Your task to perform on an android device: turn notification dots on Image 0: 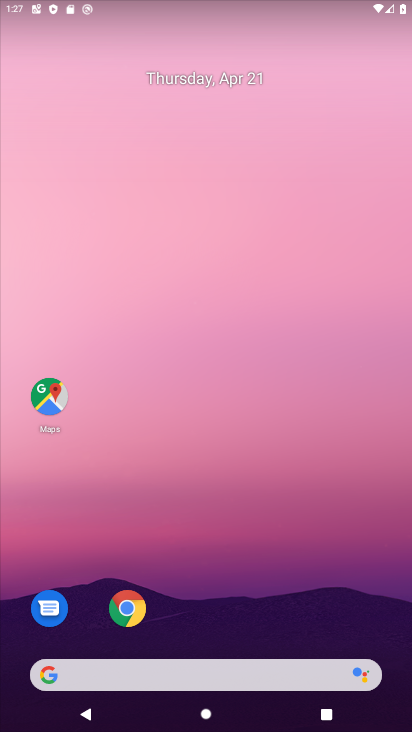
Step 0: drag from (340, 493) to (326, 88)
Your task to perform on an android device: turn notification dots on Image 1: 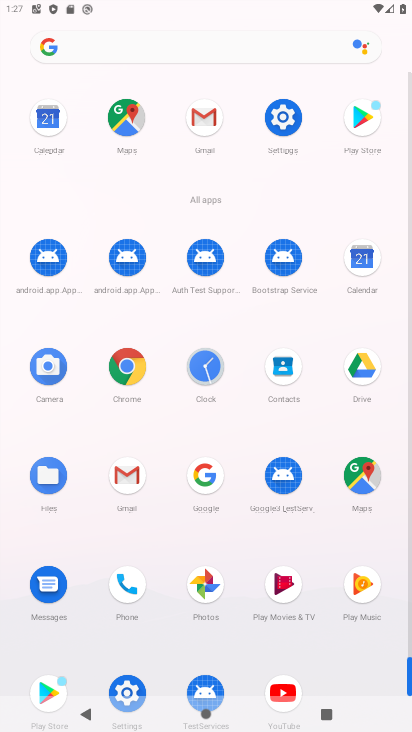
Step 1: click (292, 119)
Your task to perform on an android device: turn notification dots on Image 2: 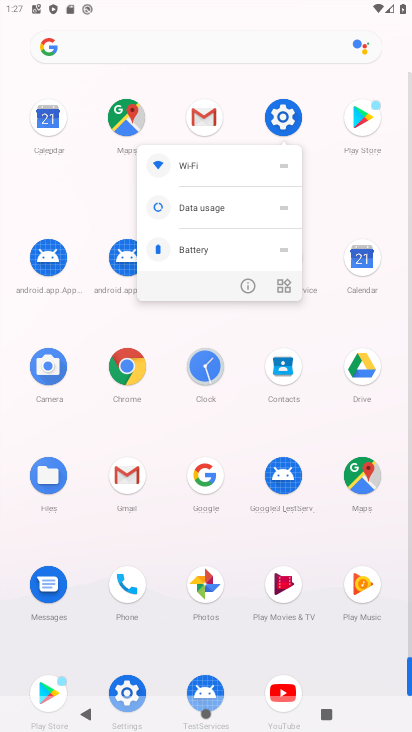
Step 2: click (292, 119)
Your task to perform on an android device: turn notification dots on Image 3: 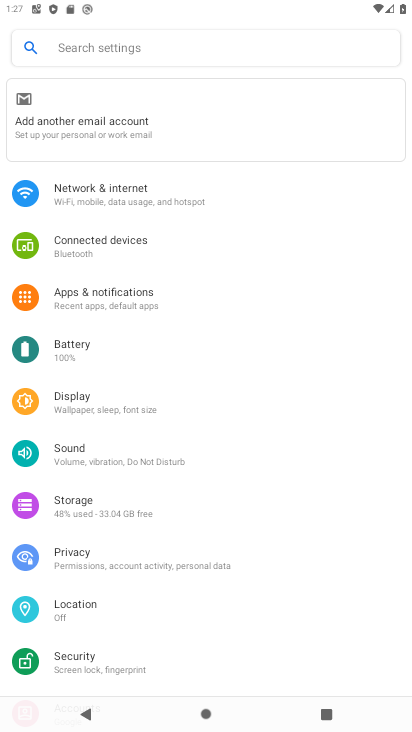
Step 3: click (102, 309)
Your task to perform on an android device: turn notification dots on Image 4: 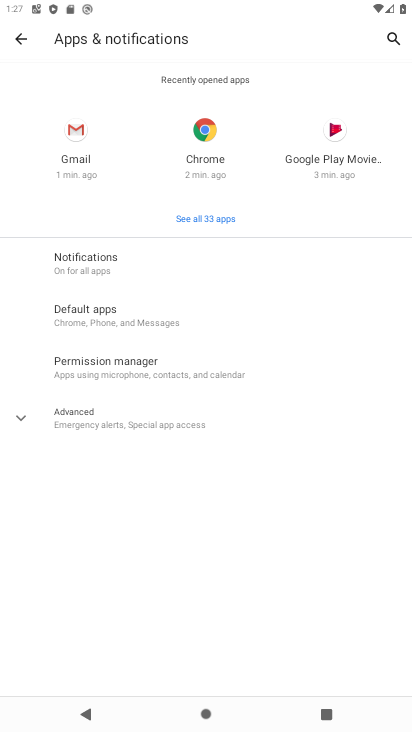
Step 4: click (87, 266)
Your task to perform on an android device: turn notification dots on Image 5: 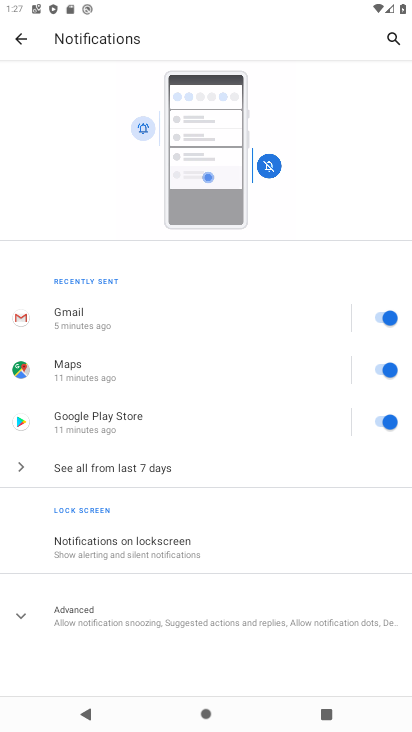
Step 5: drag from (208, 523) to (223, 248)
Your task to perform on an android device: turn notification dots on Image 6: 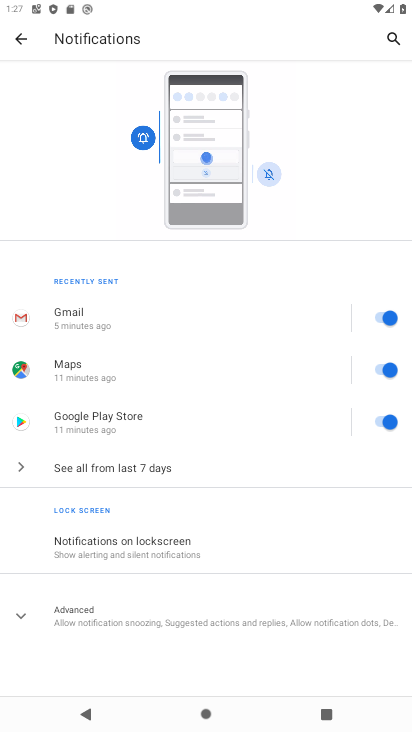
Step 6: click (72, 626)
Your task to perform on an android device: turn notification dots on Image 7: 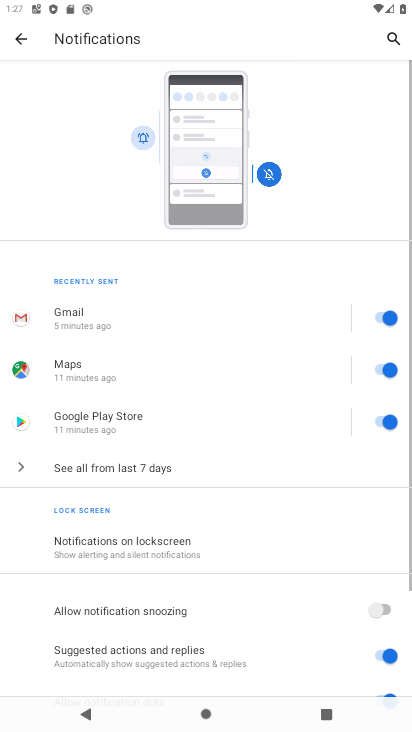
Step 7: task complete